Your task to perform on an android device: turn on bluetooth scan Image 0: 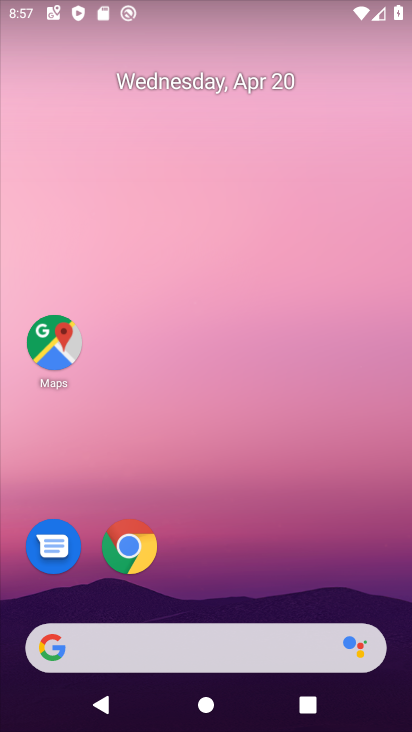
Step 0: drag from (217, 730) to (210, 104)
Your task to perform on an android device: turn on bluetooth scan Image 1: 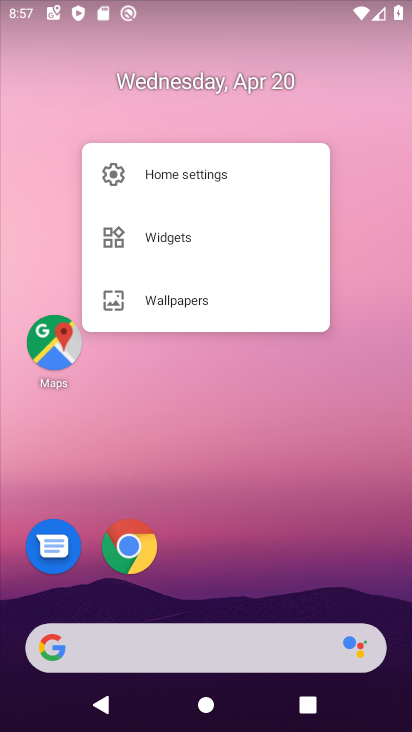
Step 1: click (232, 541)
Your task to perform on an android device: turn on bluetooth scan Image 2: 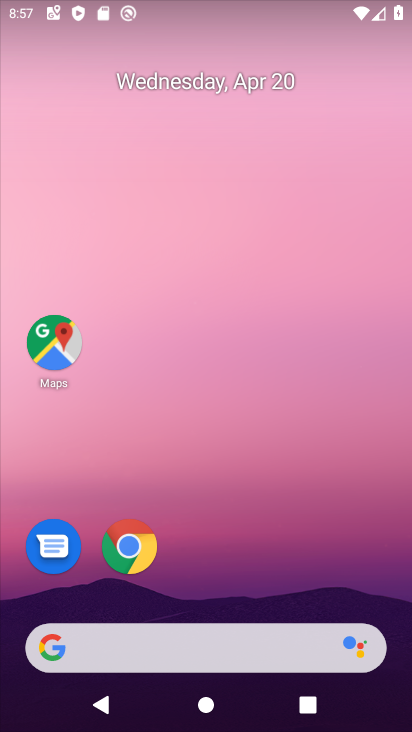
Step 2: drag from (202, 612) to (183, 75)
Your task to perform on an android device: turn on bluetooth scan Image 3: 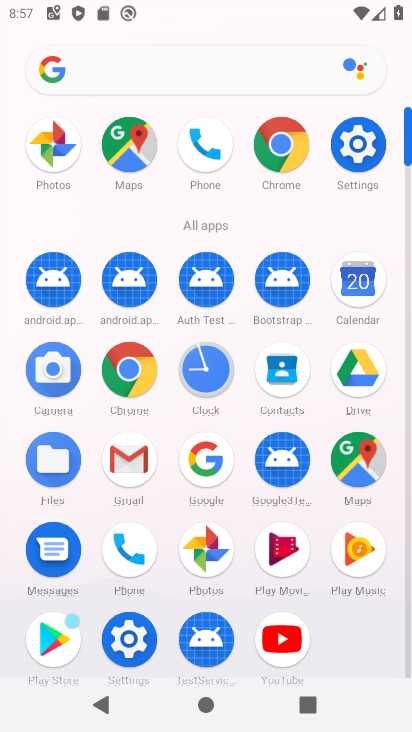
Step 3: click (355, 146)
Your task to perform on an android device: turn on bluetooth scan Image 4: 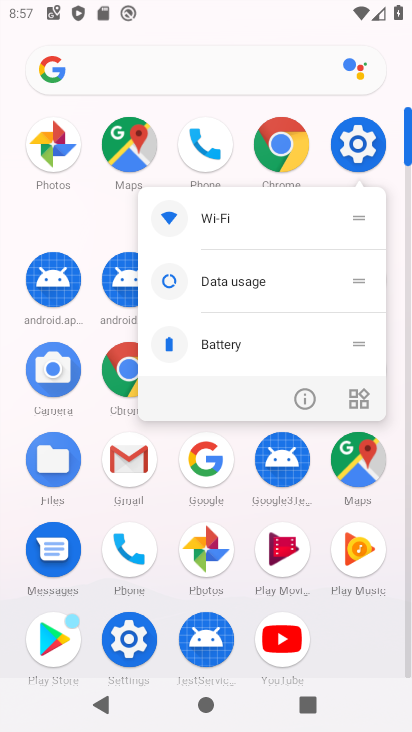
Step 4: click (362, 154)
Your task to perform on an android device: turn on bluetooth scan Image 5: 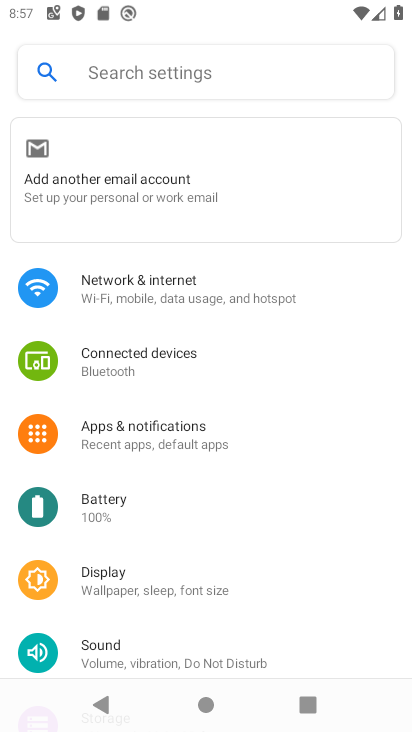
Step 5: drag from (143, 592) to (185, 229)
Your task to perform on an android device: turn on bluetooth scan Image 6: 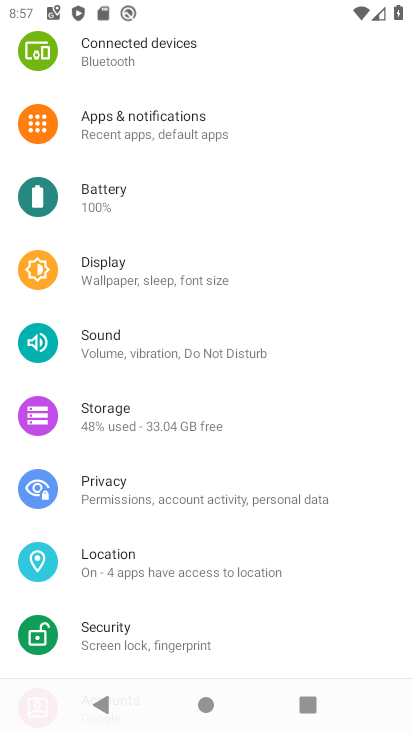
Step 6: click (119, 560)
Your task to perform on an android device: turn on bluetooth scan Image 7: 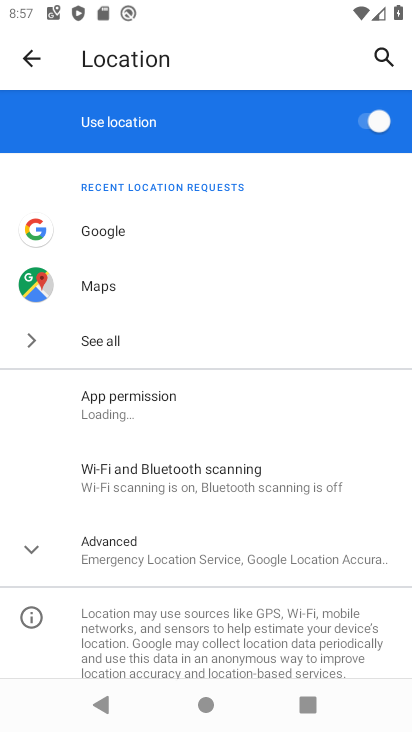
Step 7: click (194, 482)
Your task to perform on an android device: turn on bluetooth scan Image 8: 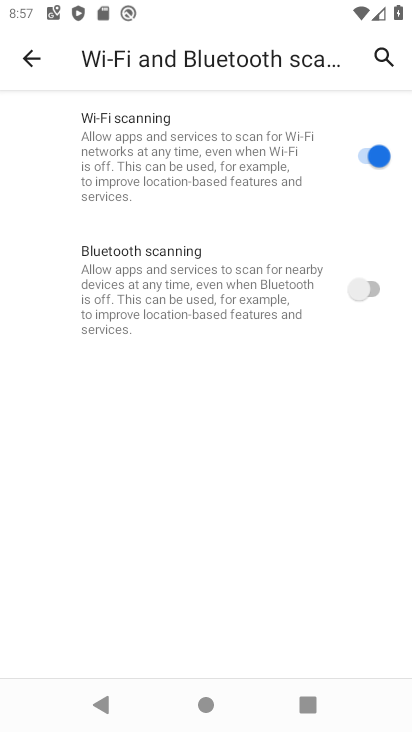
Step 8: click (376, 291)
Your task to perform on an android device: turn on bluetooth scan Image 9: 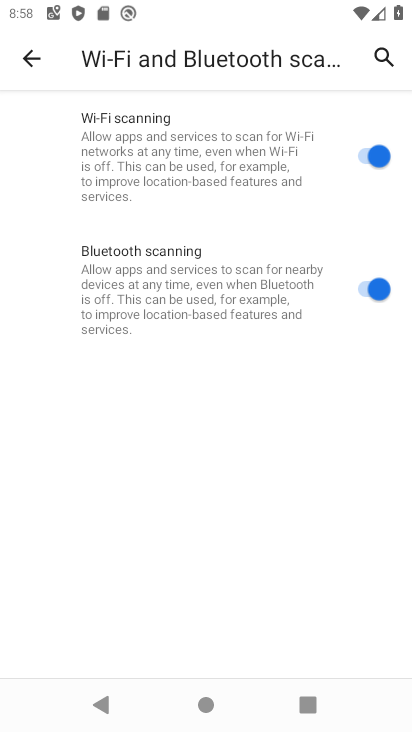
Step 9: task complete